Your task to perform on an android device: change the upload size in google photos Image 0: 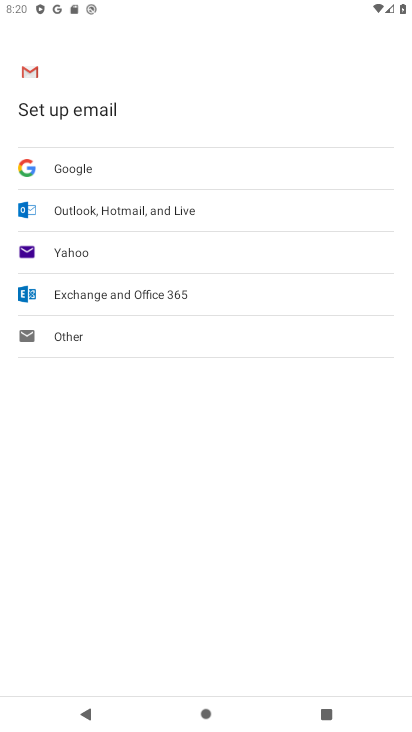
Step 0: press home button
Your task to perform on an android device: change the upload size in google photos Image 1: 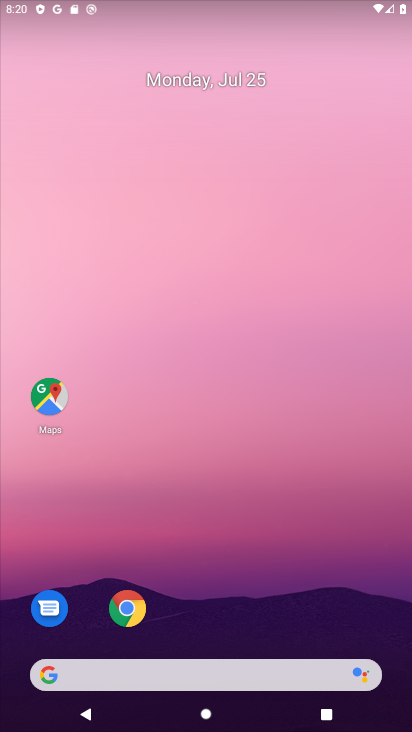
Step 1: drag from (247, 630) to (267, 203)
Your task to perform on an android device: change the upload size in google photos Image 2: 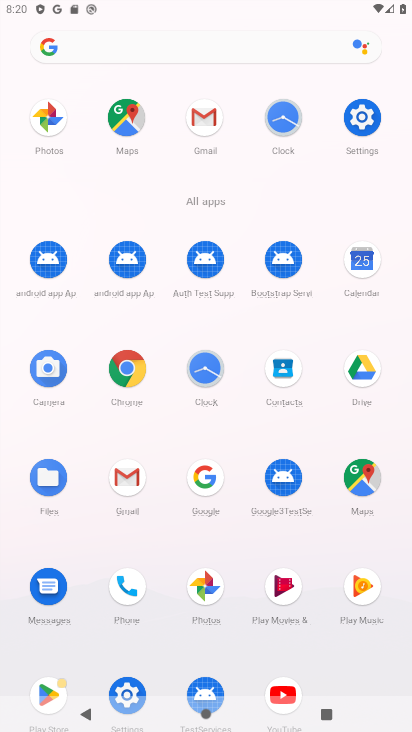
Step 2: click (203, 590)
Your task to perform on an android device: change the upload size in google photos Image 3: 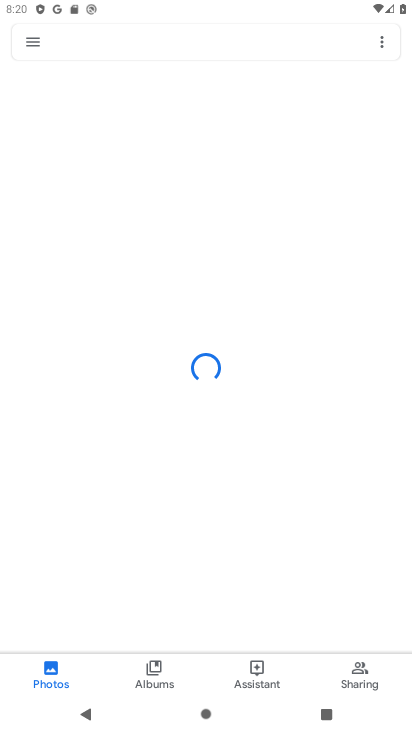
Step 3: click (35, 39)
Your task to perform on an android device: change the upload size in google photos Image 4: 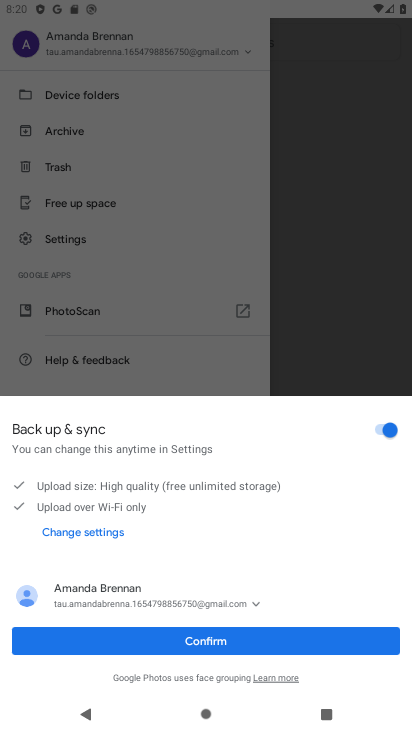
Step 4: click (202, 629)
Your task to perform on an android device: change the upload size in google photos Image 5: 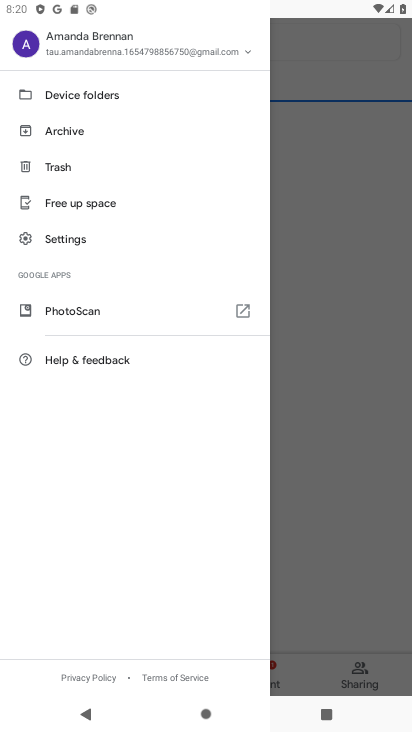
Step 5: click (65, 236)
Your task to perform on an android device: change the upload size in google photos Image 6: 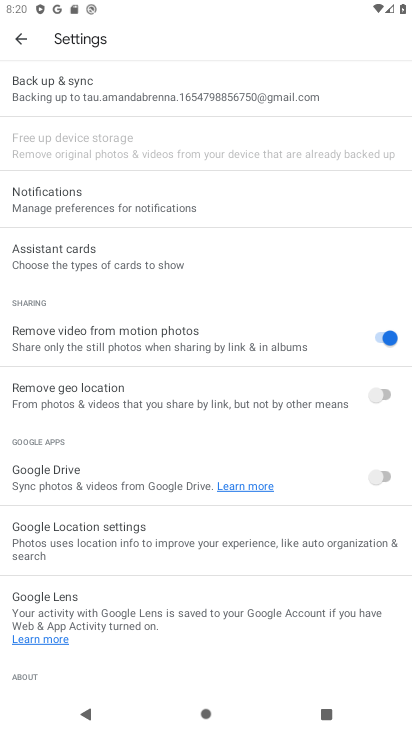
Step 6: click (64, 76)
Your task to perform on an android device: change the upload size in google photos Image 7: 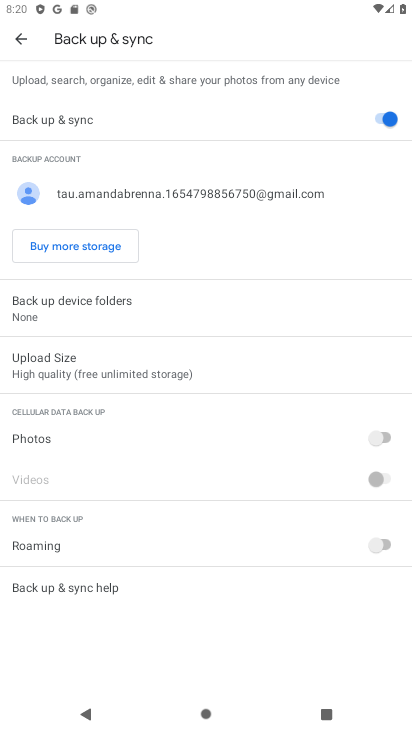
Step 7: click (97, 369)
Your task to perform on an android device: change the upload size in google photos Image 8: 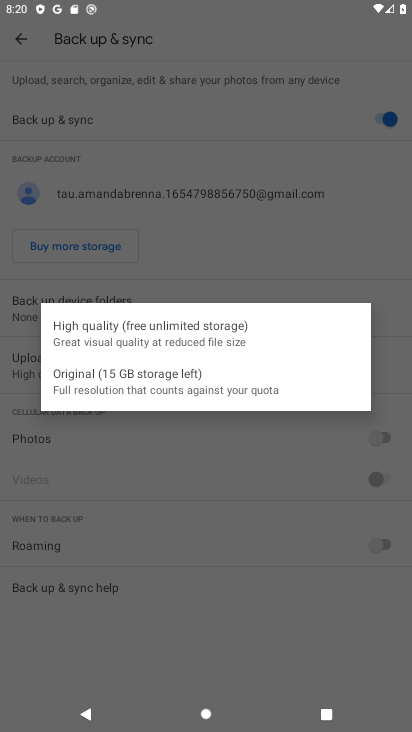
Step 8: click (102, 386)
Your task to perform on an android device: change the upload size in google photos Image 9: 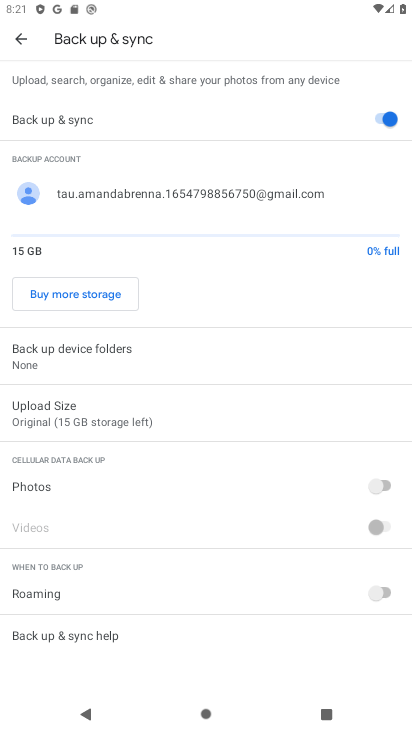
Step 9: task complete